Your task to perform on an android device: Is it going to rain tomorrow? Image 0: 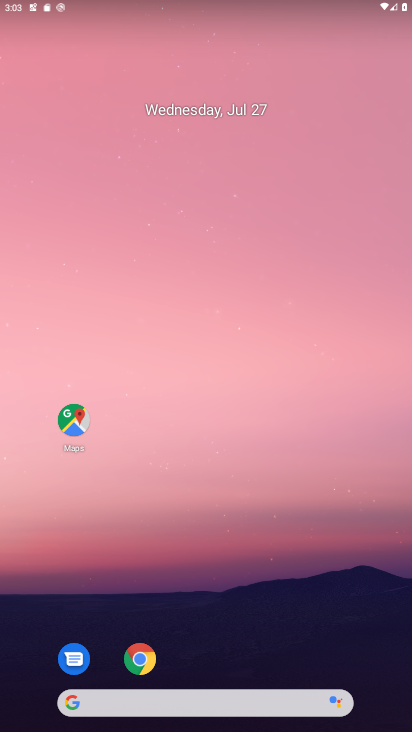
Step 0: drag from (201, 582) to (33, 29)
Your task to perform on an android device: Is it going to rain tomorrow? Image 1: 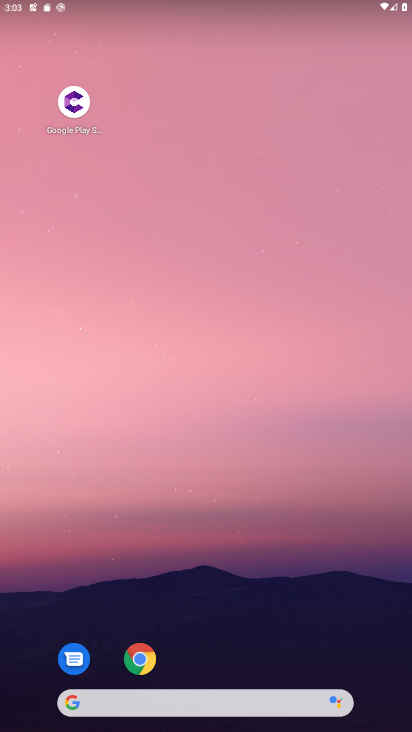
Step 1: drag from (279, 626) to (220, 127)
Your task to perform on an android device: Is it going to rain tomorrow? Image 2: 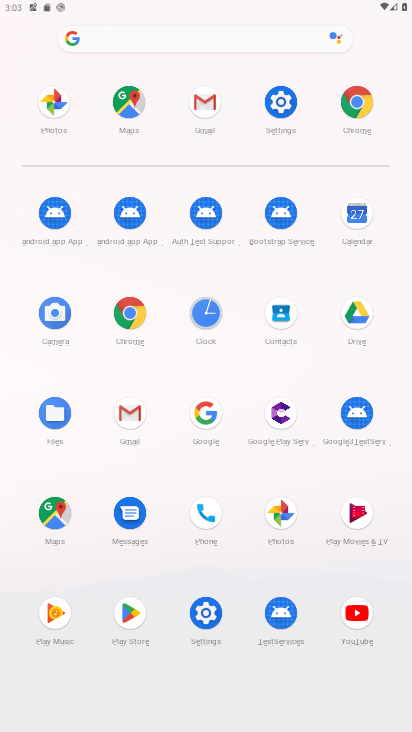
Step 2: click (199, 406)
Your task to perform on an android device: Is it going to rain tomorrow? Image 3: 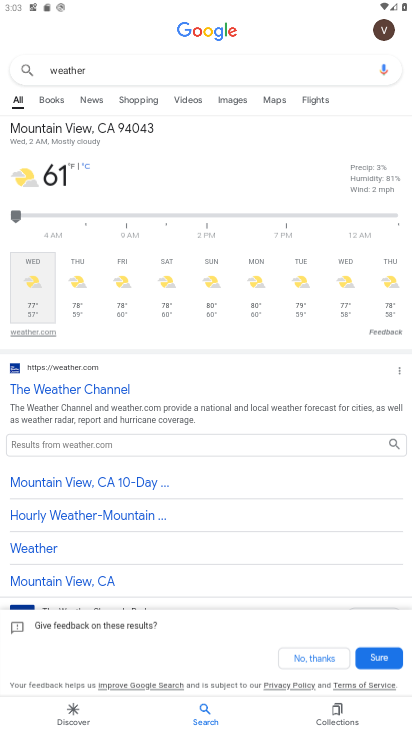
Step 3: task complete